Your task to perform on an android device: show emergency info Image 0: 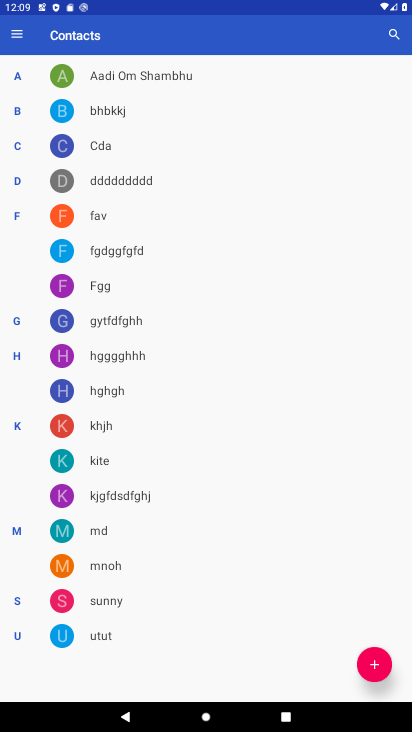
Step 0: press home button
Your task to perform on an android device: show emergency info Image 1: 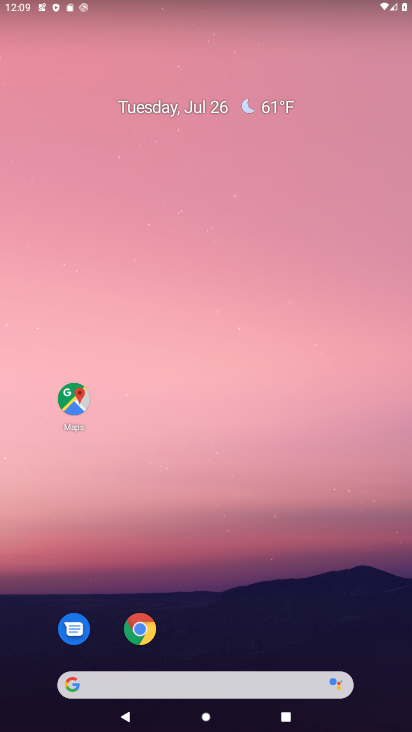
Step 1: drag from (191, 638) to (193, 198)
Your task to perform on an android device: show emergency info Image 2: 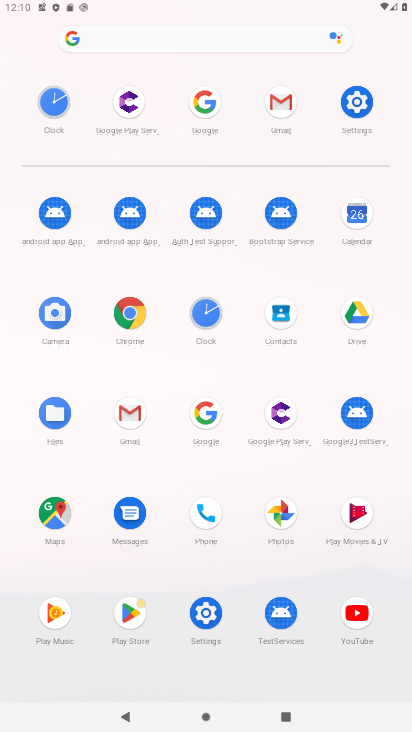
Step 2: click (337, 104)
Your task to perform on an android device: show emergency info Image 3: 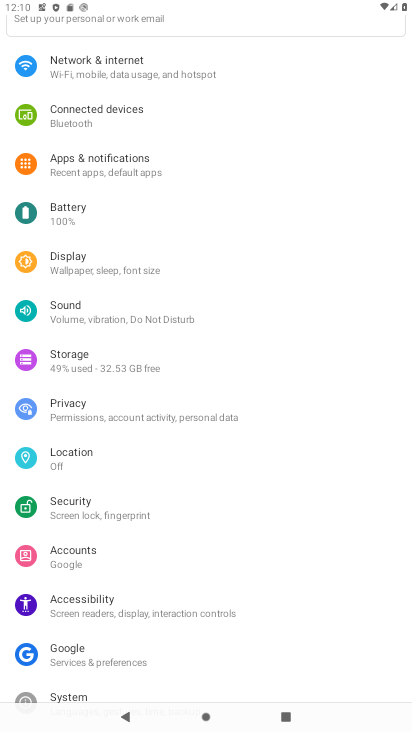
Step 3: drag from (152, 613) to (147, 229)
Your task to perform on an android device: show emergency info Image 4: 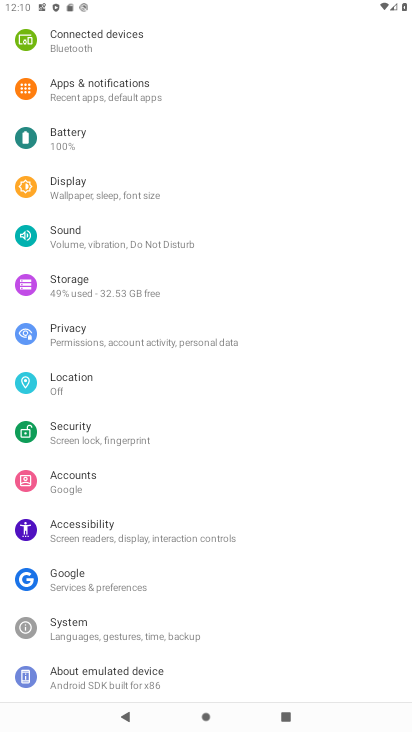
Step 4: click (131, 682)
Your task to perform on an android device: show emergency info Image 5: 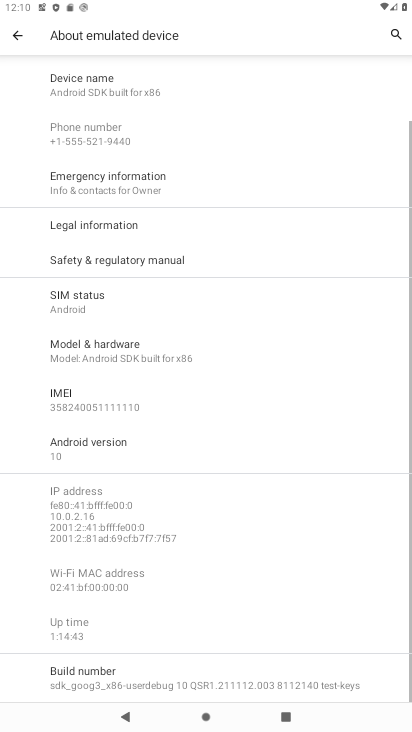
Step 5: click (117, 195)
Your task to perform on an android device: show emergency info Image 6: 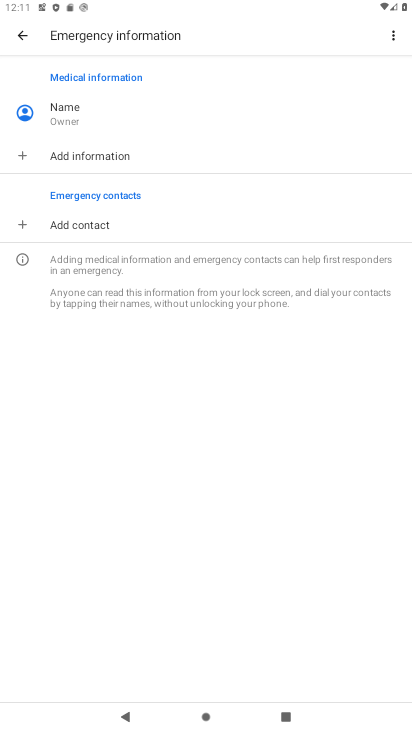
Step 6: task complete